Your task to perform on an android device: What's the weather today? Image 0: 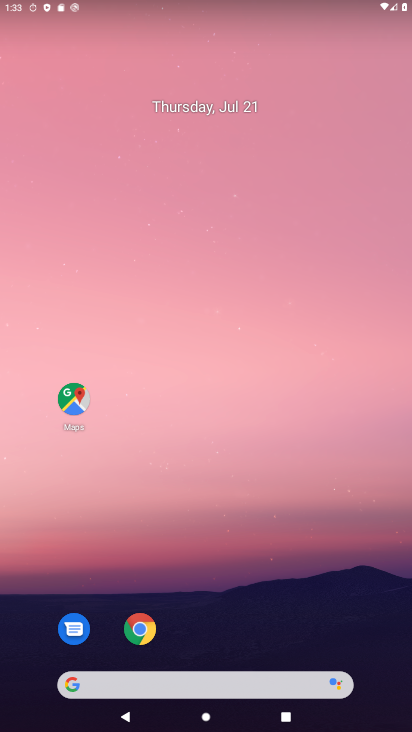
Step 0: click (280, 17)
Your task to perform on an android device: What's the weather today? Image 1: 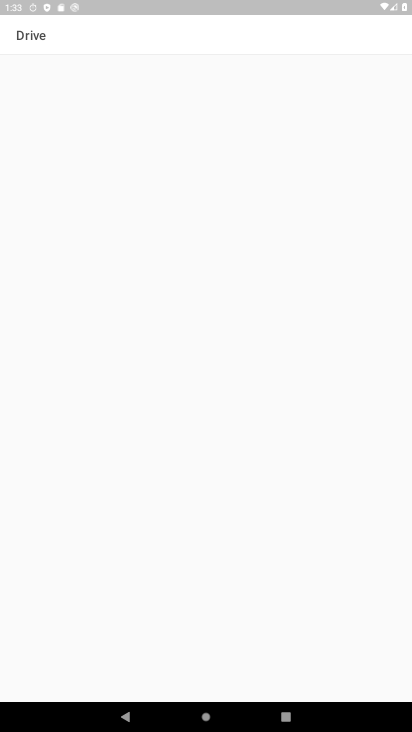
Step 1: drag from (30, 703) to (110, 406)
Your task to perform on an android device: What's the weather today? Image 2: 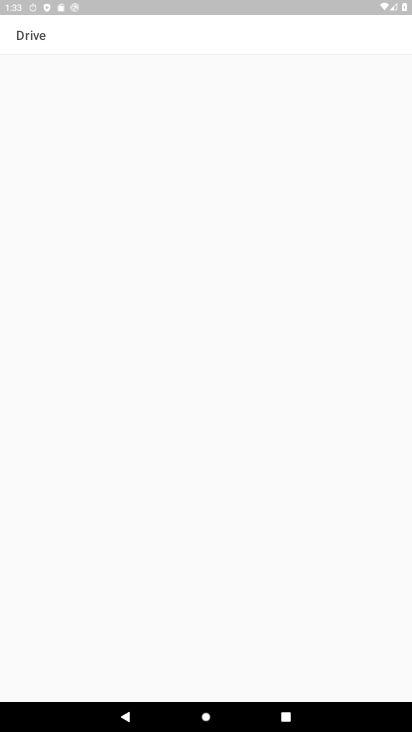
Step 2: press home button
Your task to perform on an android device: What's the weather today? Image 3: 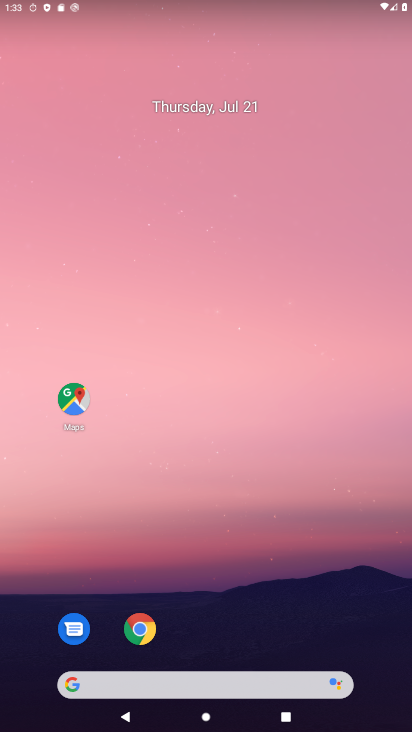
Step 3: drag from (34, 695) to (224, 142)
Your task to perform on an android device: What's the weather today? Image 4: 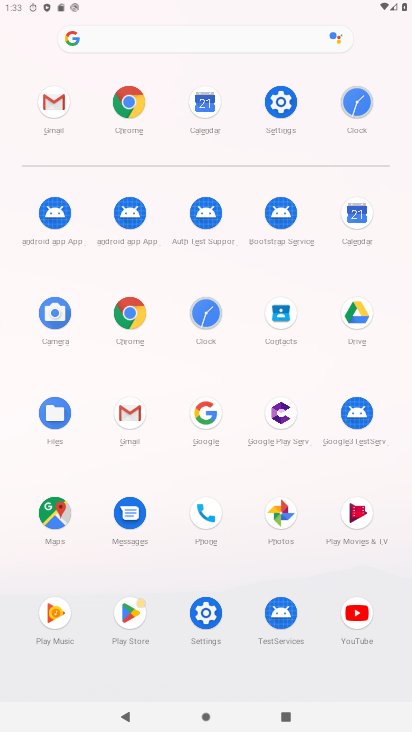
Step 4: click (98, 33)
Your task to perform on an android device: What's the weather today? Image 5: 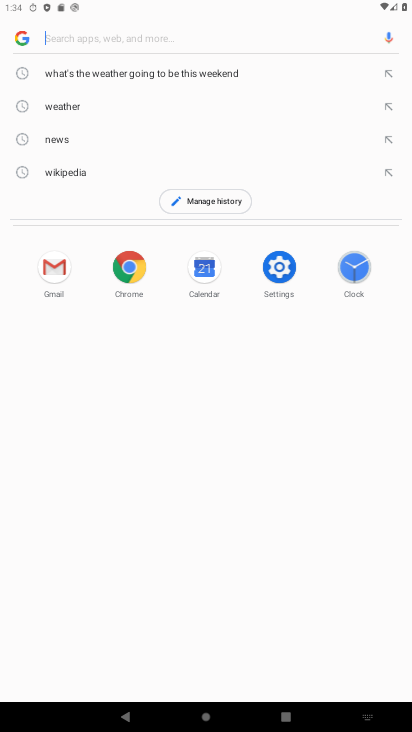
Step 5: type "What's the weather today?"
Your task to perform on an android device: What's the weather today? Image 6: 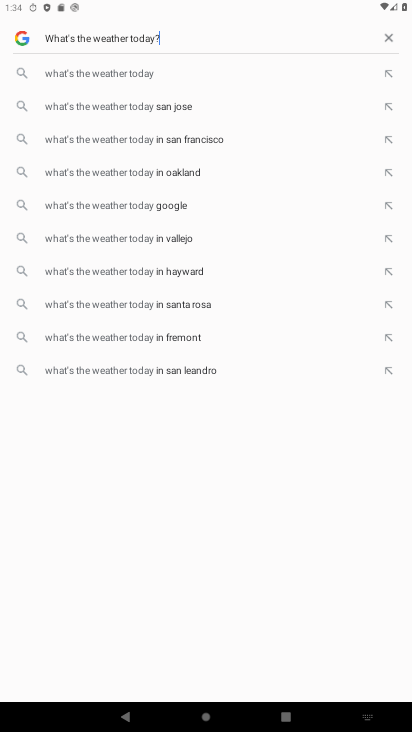
Step 6: type ""
Your task to perform on an android device: What's the weather today? Image 7: 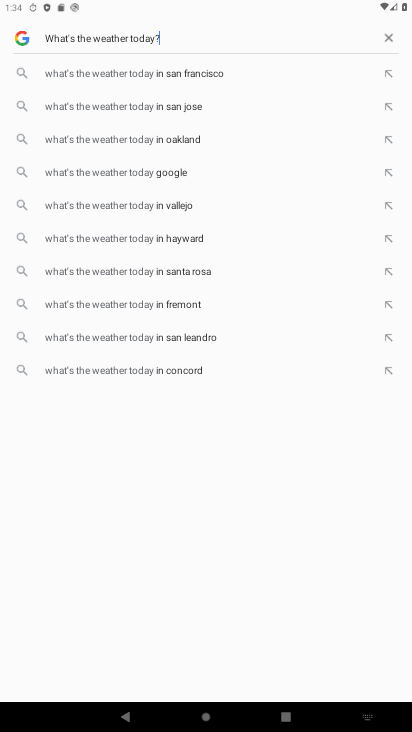
Step 7: type ""
Your task to perform on an android device: What's the weather today? Image 8: 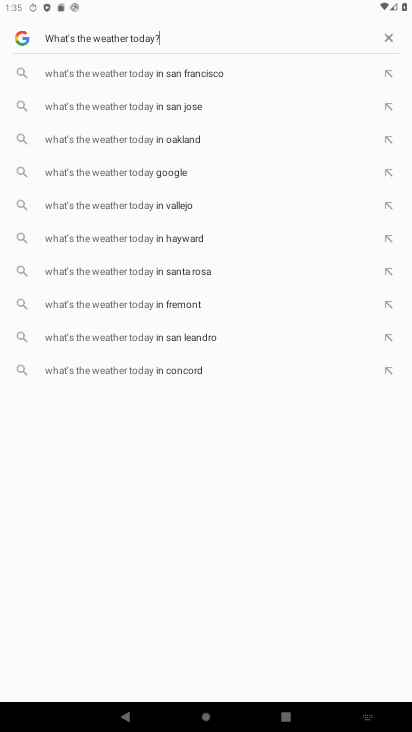
Step 8: task complete